Your task to perform on an android device: open app "DoorDash - Dasher" (install if not already installed), go to login, and select forgot password Image 0: 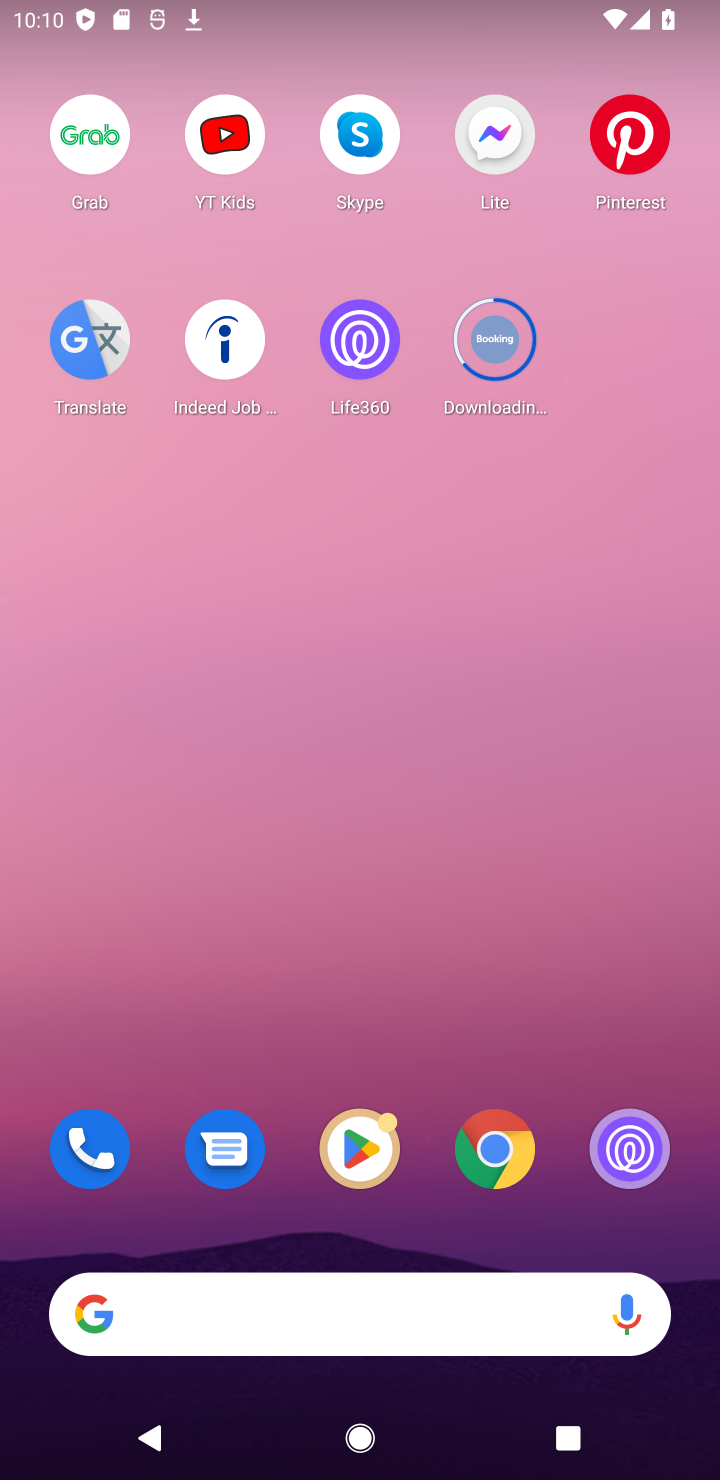
Step 0: press home button
Your task to perform on an android device: open app "DoorDash - Dasher" (install if not already installed), go to login, and select forgot password Image 1: 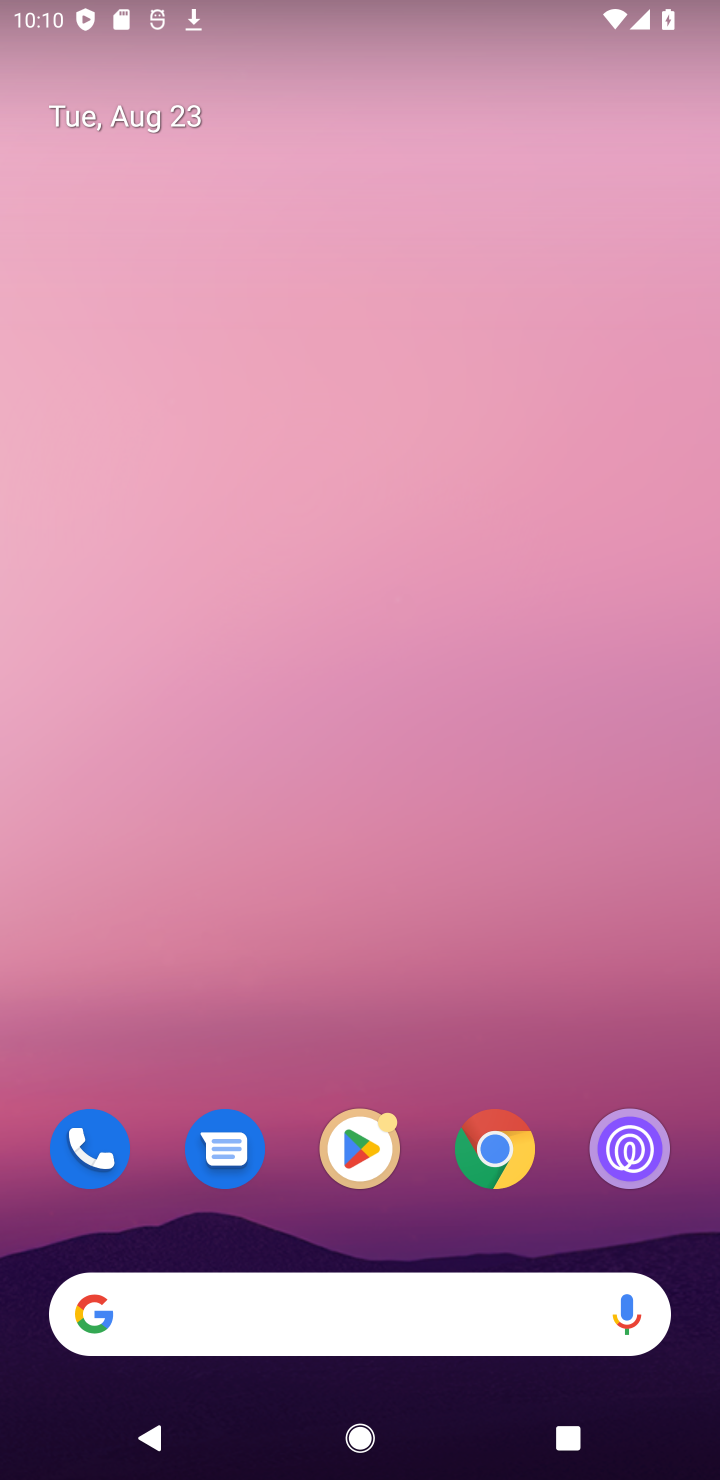
Step 1: click (372, 1142)
Your task to perform on an android device: open app "DoorDash - Dasher" (install if not already installed), go to login, and select forgot password Image 2: 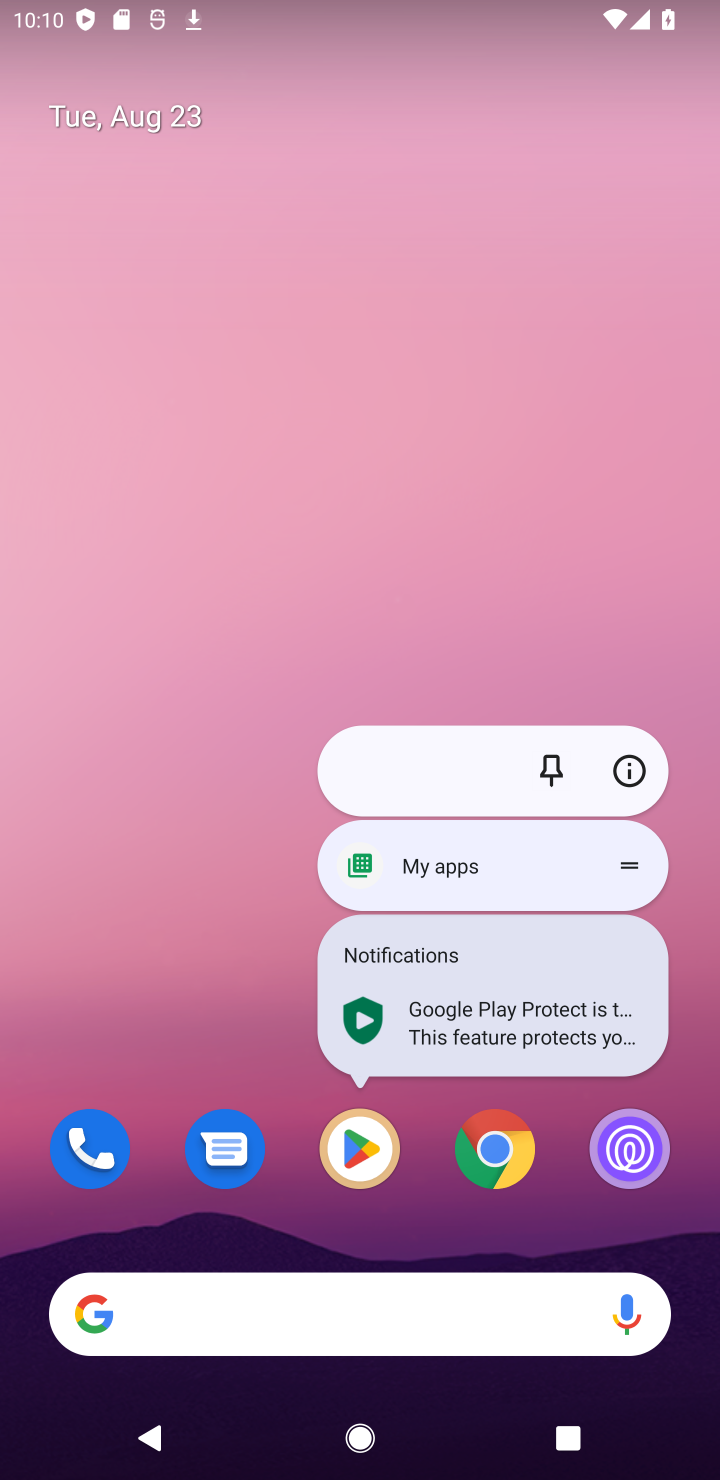
Step 2: click (349, 1172)
Your task to perform on an android device: open app "DoorDash - Dasher" (install if not already installed), go to login, and select forgot password Image 3: 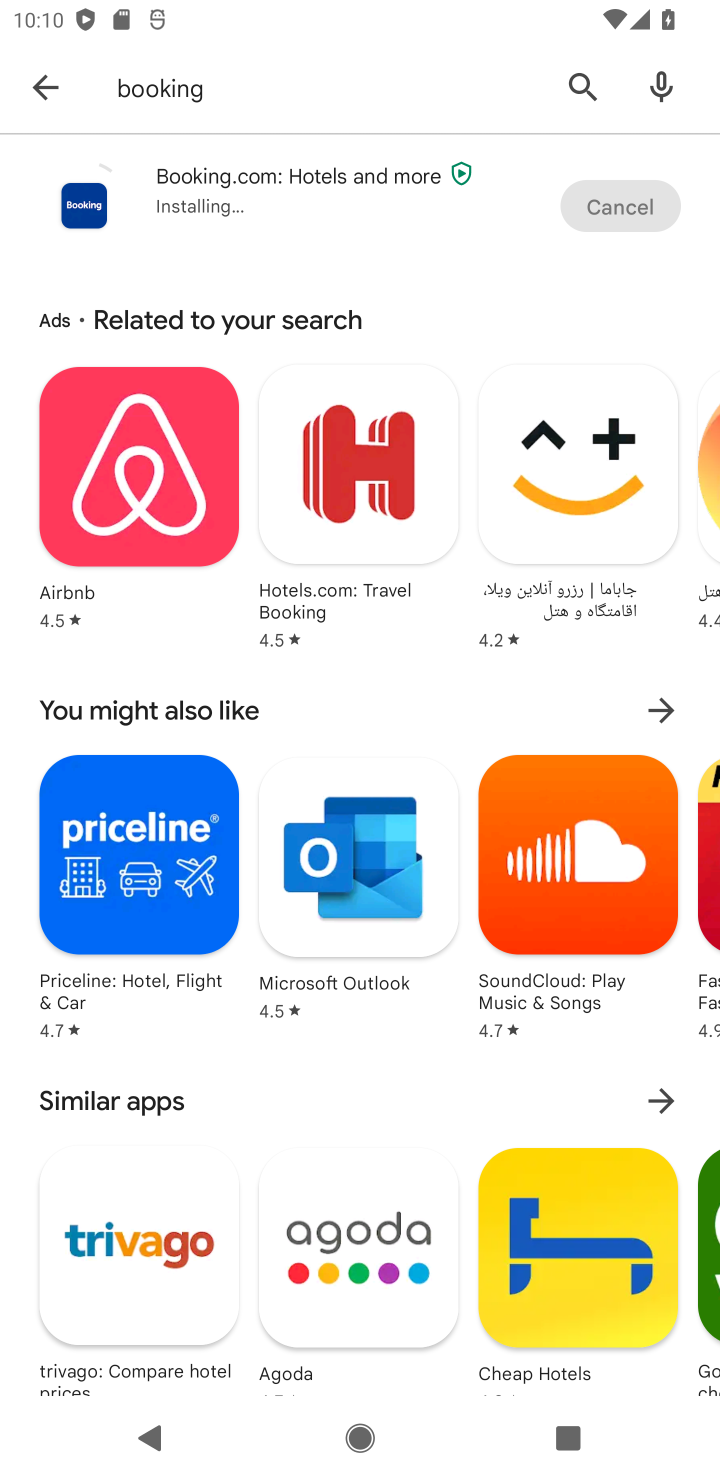
Step 3: click (569, 87)
Your task to perform on an android device: open app "DoorDash - Dasher" (install if not already installed), go to login, and select forgot password Image 4: 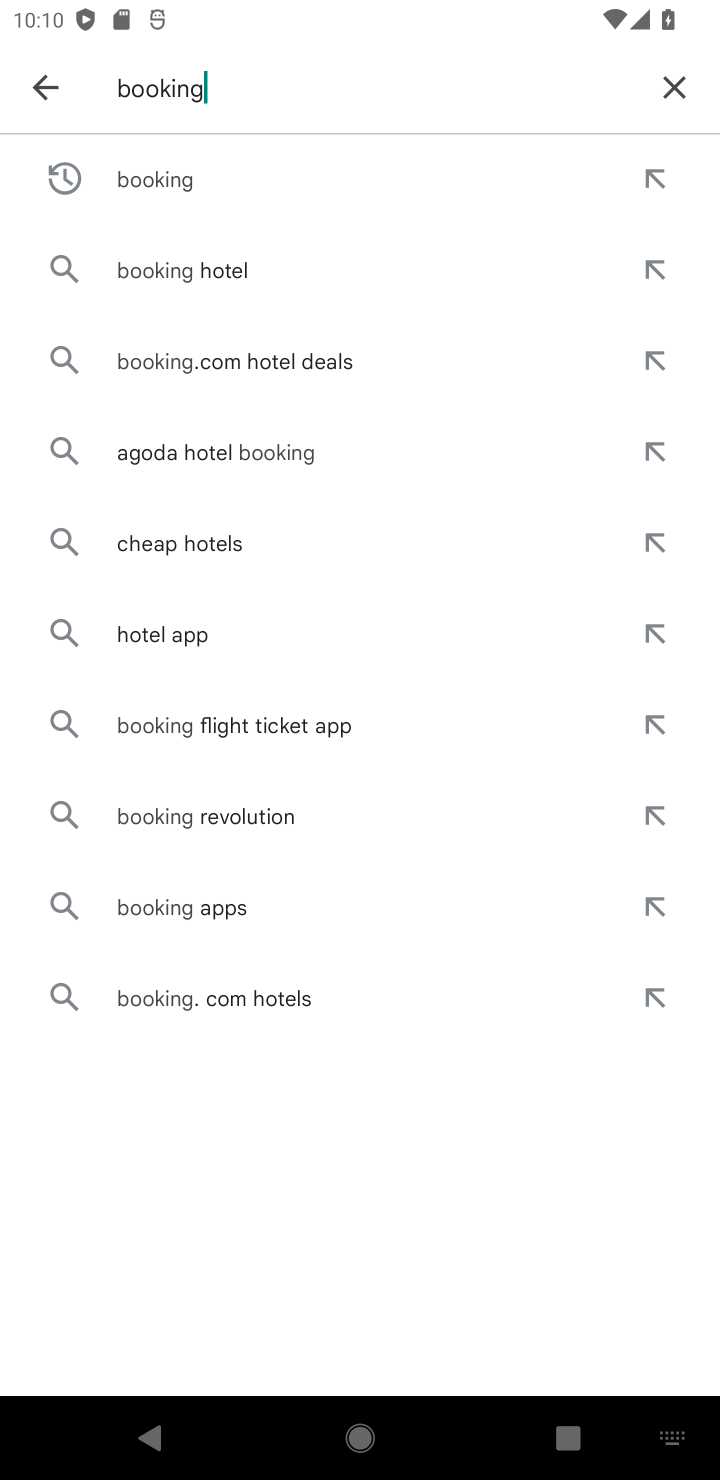
Step 4: click (656, 87)
Your task to perform on an android device: open app "DoorDash - Dasher" (install if not already installed), go to login, and select forgot password Image 5: 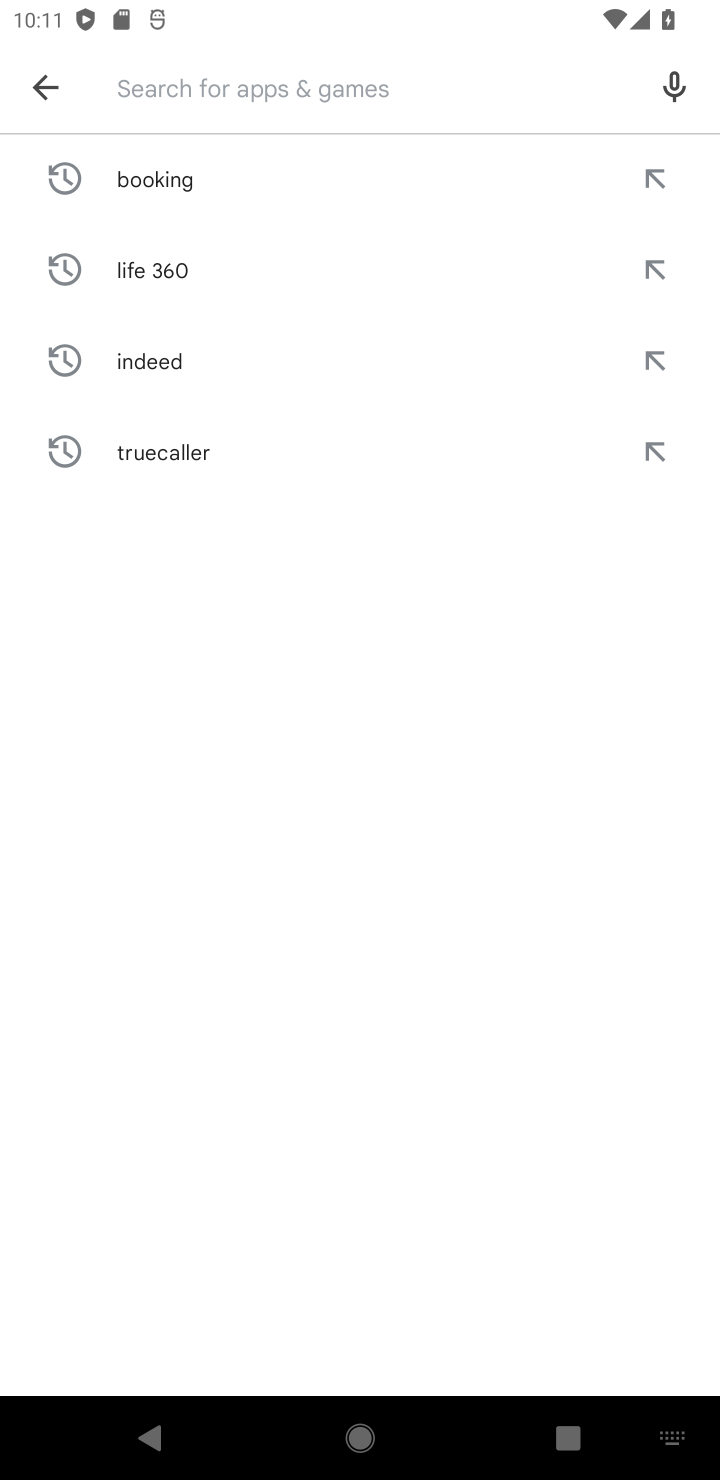
Step 5: type "doordash"
Your task to perform on an android device: open app "DoorDash - Dasher" (install if not already installed), go to login, and select forgot password Image 6: 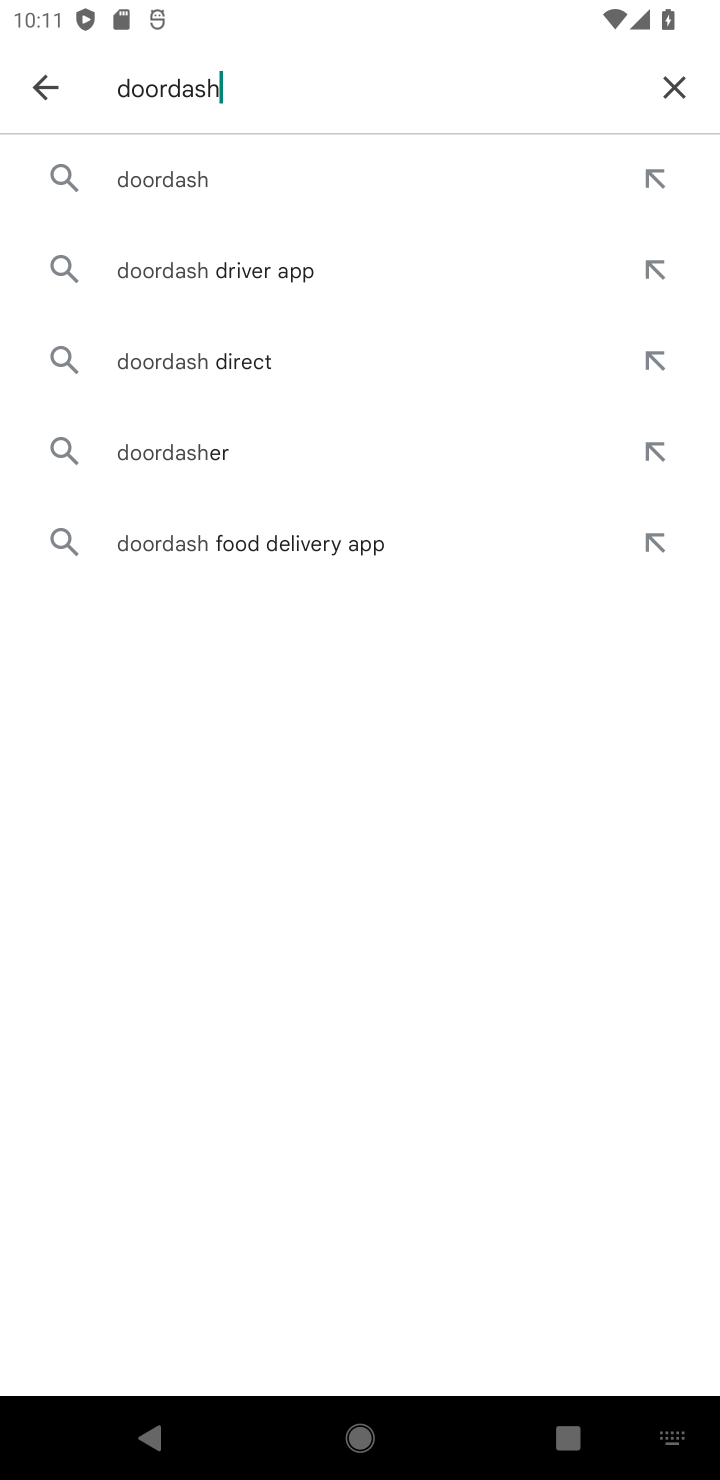
Step 6: click (170, 209)
Your task to perform on an android device: open app "DoorDash - Dasher" (install if not already installed), go to login, and select forgot password Image 7: 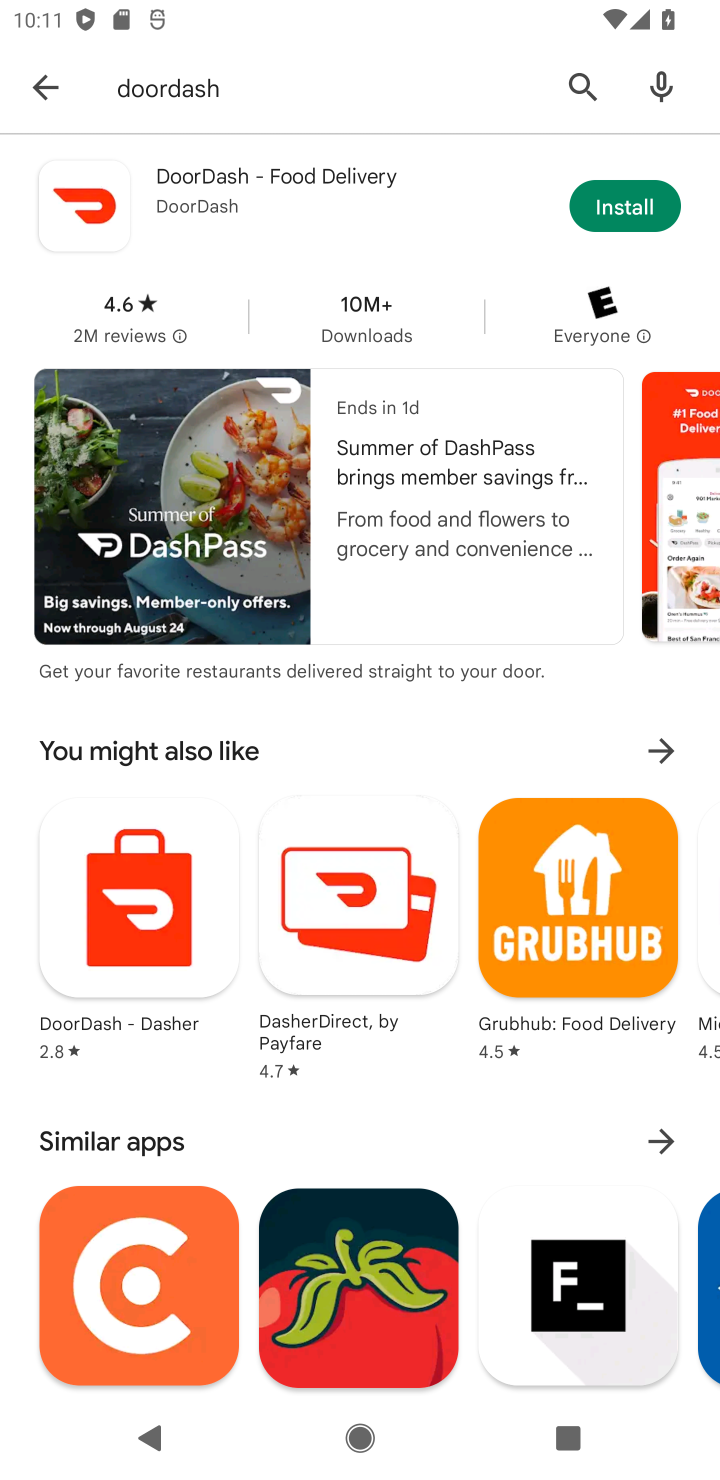
Step 7: click (580, 204)
Your task to perform on an android device: open app "DoorDash - Dasher" (install if not already installed), go to login, and select forgot password Image 8: 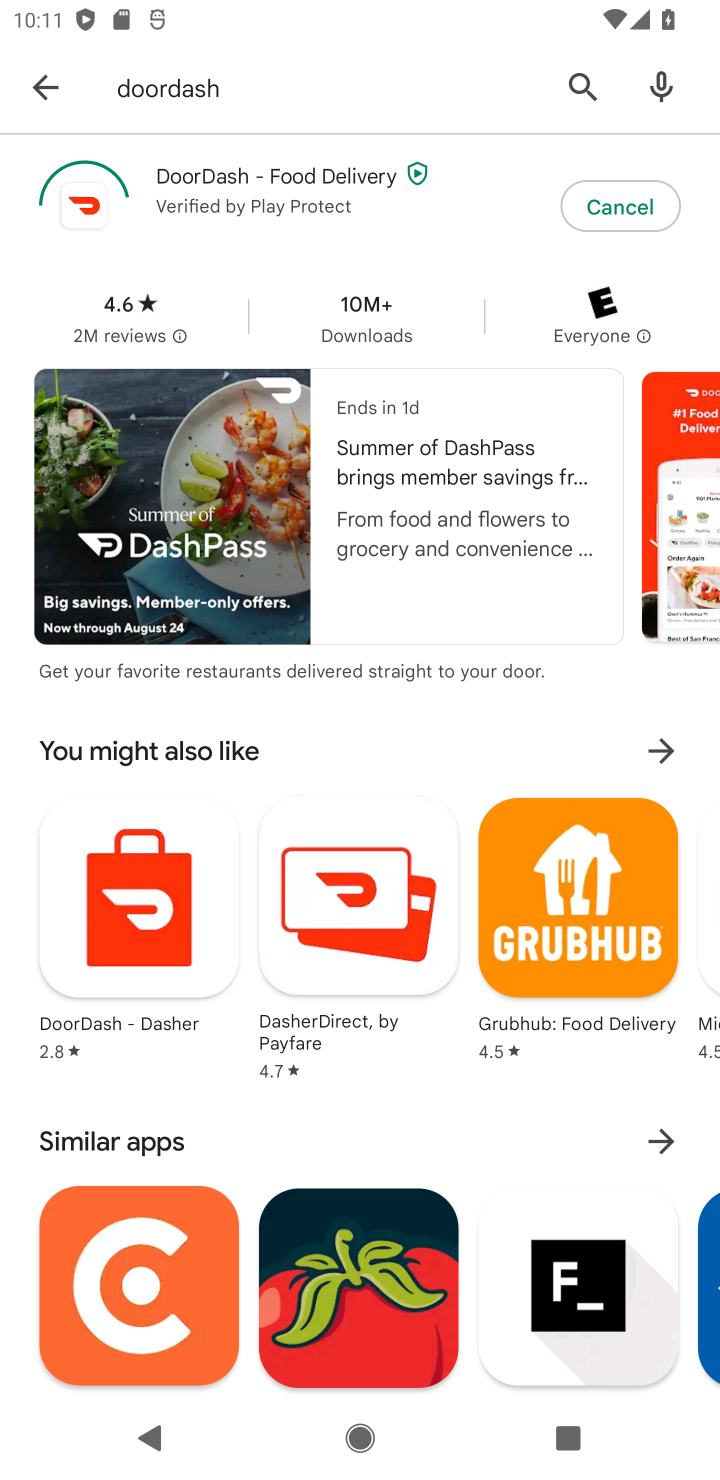
Step 8: task complete